Your task to perform on an android device: turn pop-ups on in chrome Image 0: 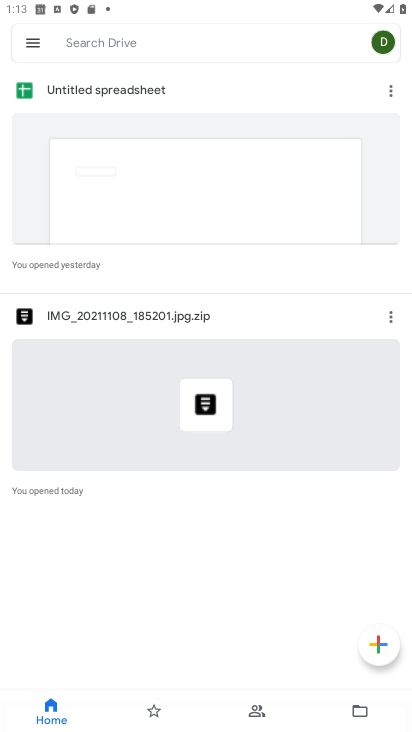
Step 0: press home button
Your task to perform on an android device: turn pop-ups on in chrome Image 1: 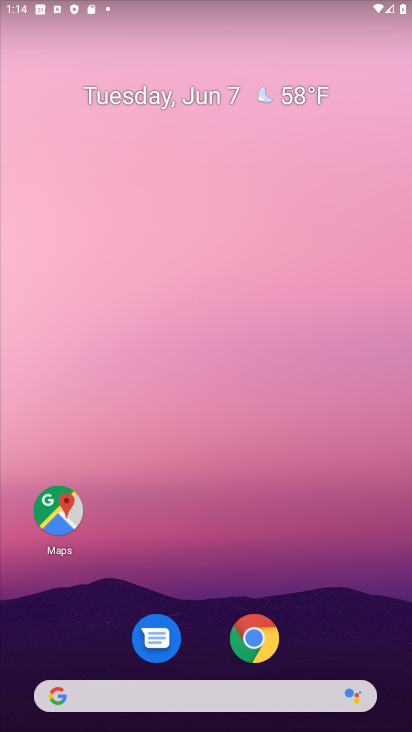
Step 1: drag from (192, 654) to (288, 0)
Your task to perform on an android device: turn pop-ups on in chrome Image 2: 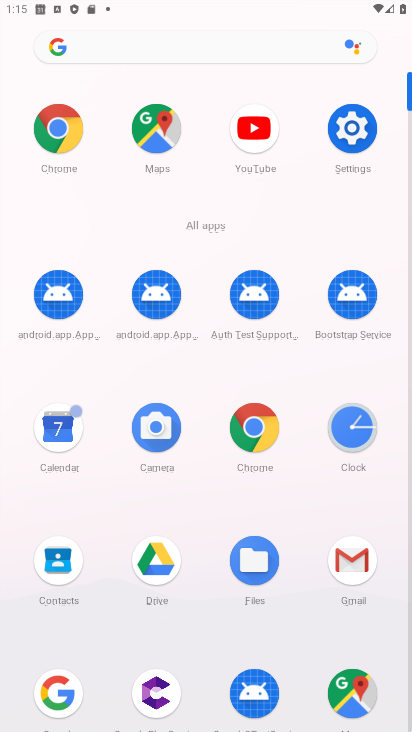
Step 2: click (248, 432)
Your task to perform on an android device: turn pop-ups on in chrome Image 3: 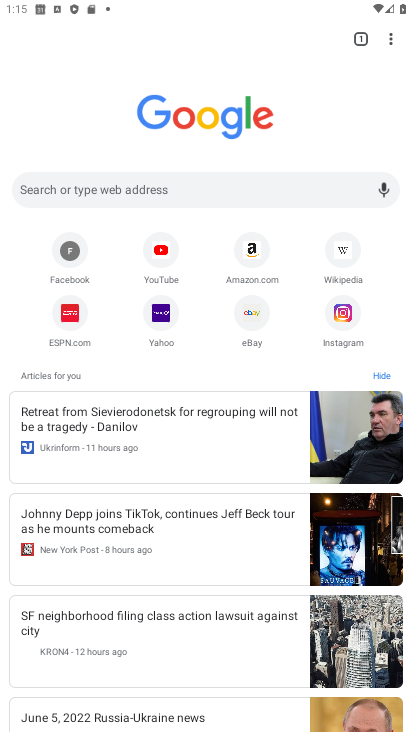
Step 3: click (392, 36)
Your task to perform on an android device: turn pop-ups on in chrome Image 4: 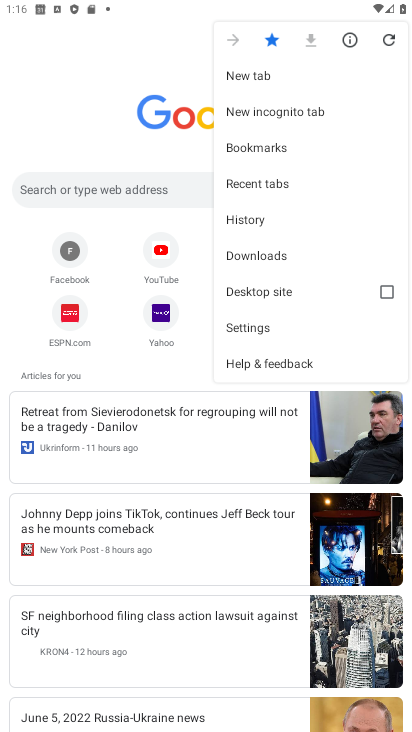
Step 4: click (247, 337)
Your task to perform on an android device: turn pop-ups on in chrome Image 5: 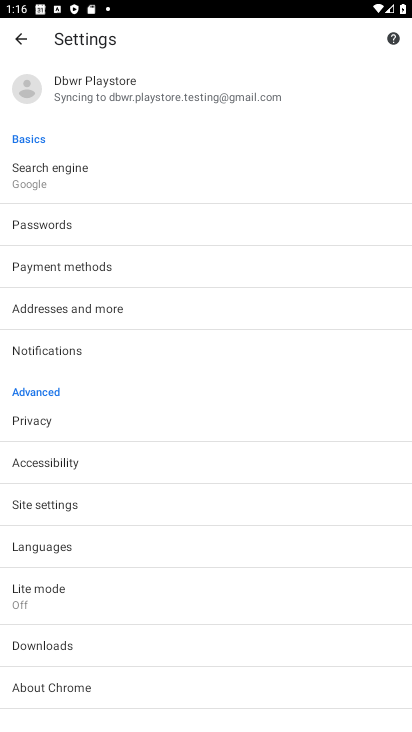
Step 5: click (81, 512)
Your task to perform on an android device: turn pop-ups on in chrome Image 6: 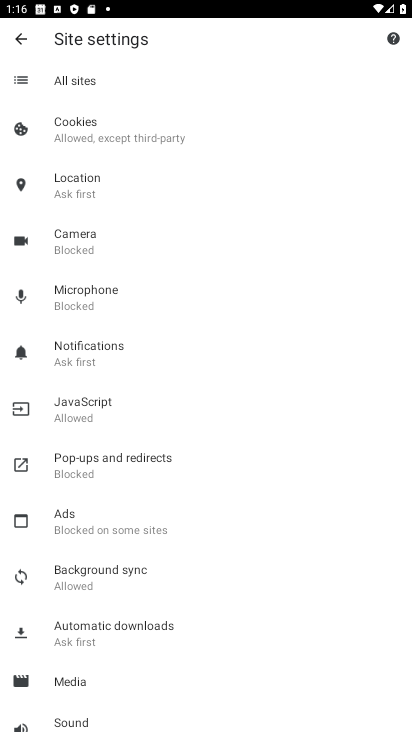
Step 6: click (94, 477)
Your task to perform on an android device: turn pop-ups on in chrome Image 7: 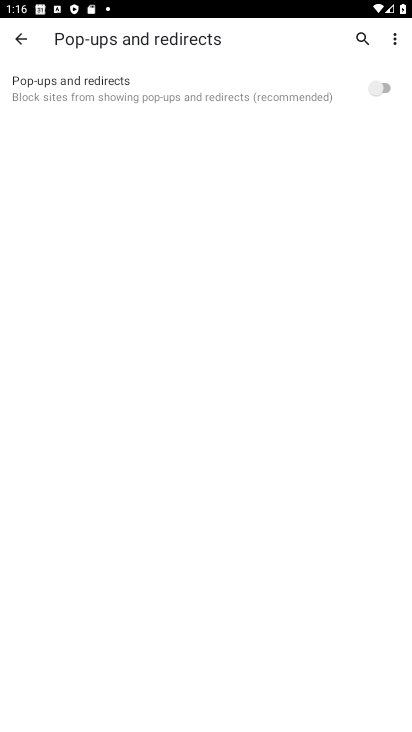
Step 7: click (376, 94)
Your task to perform on an android device: turn pop-ups on in chrome Image 8: 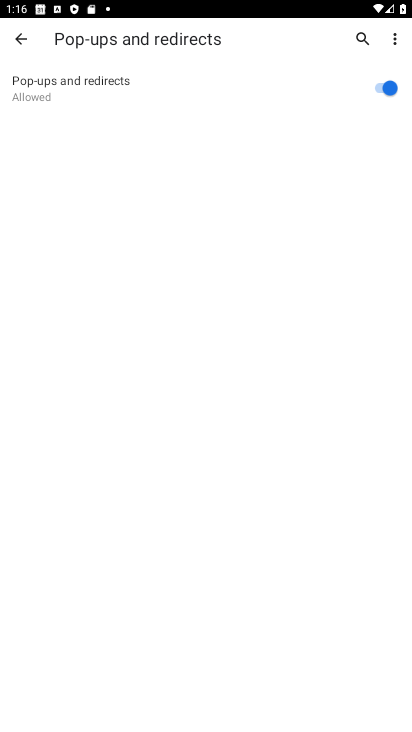
Step 8: task complete